Your task to perform on an android device: make emails show in primary in the gmail app Image 0: 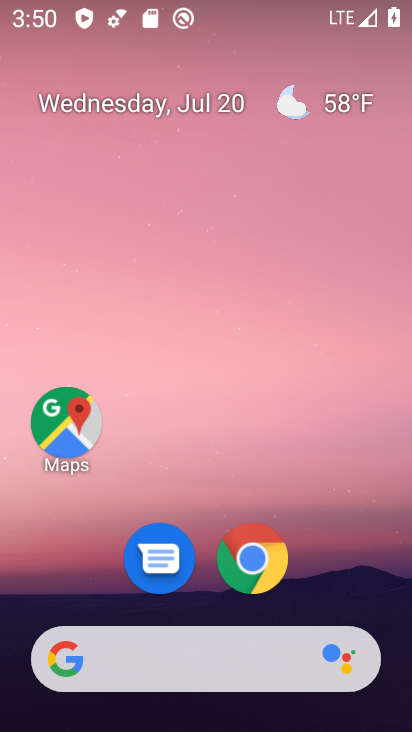
Step 0: drag from (92, 597) to (188, 30)
Your task to perform on an android device: make emails show in primary in the gmail app Image 1: 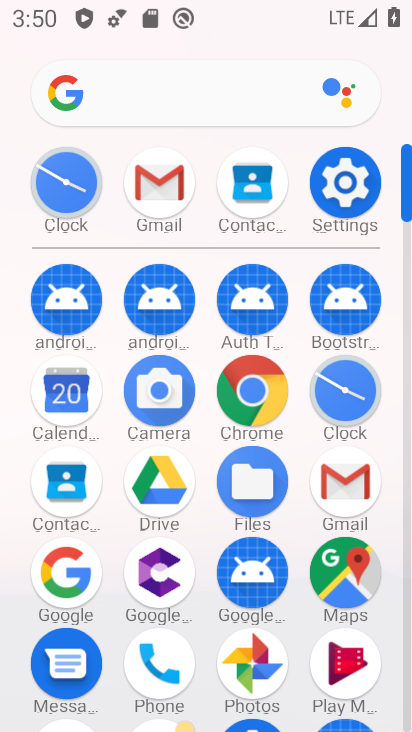
Step 1: click (170, 190)
Your task to perform on an android device: make emails show in primary in the gmail app Image 2: 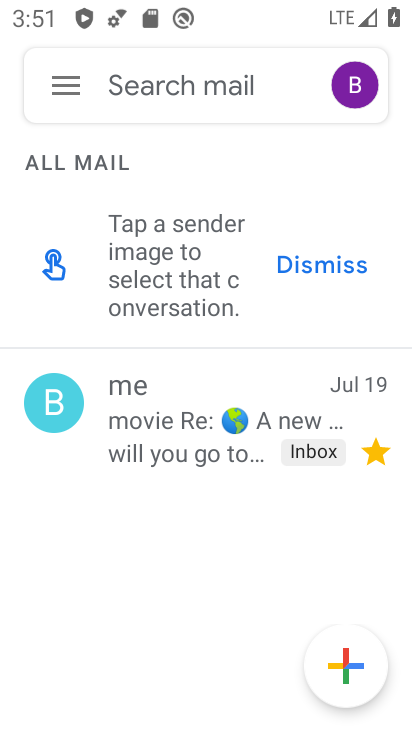
Step 2: click (61, 73)
Your task to perform on an android device: make emails show in primary in the gmail app Image 3: 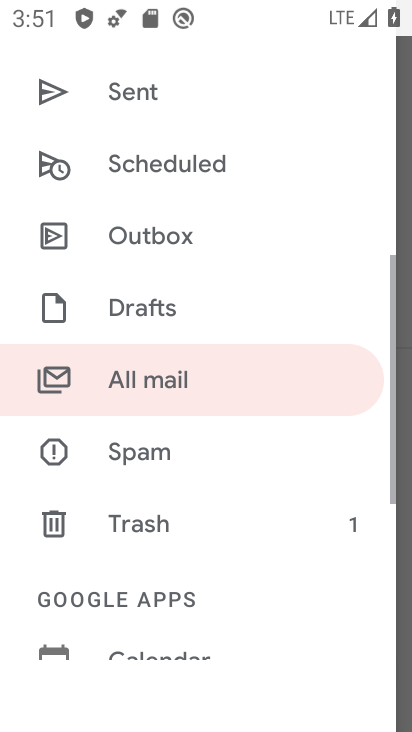
Step 3: drag from (182, 631) to (270, 24)
Your task to perform on an android device: make emails show in primary in the gmail app Image 4: 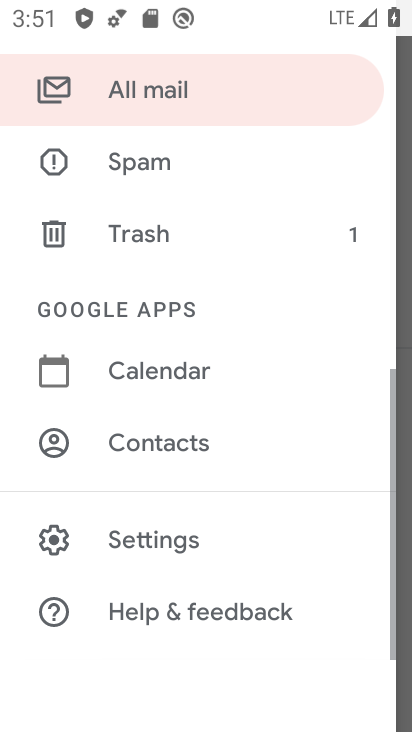
Step 4: click (143, 532)
Your task to perform on an android device: make emails show in primary in the gmail app Image 5: 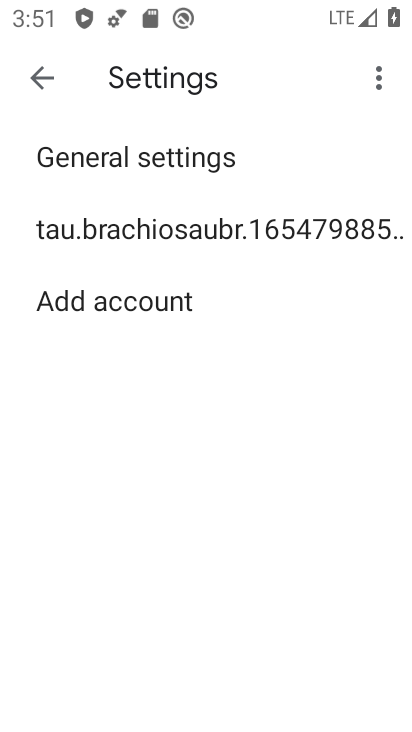
Step 5: click (143, 222)
Your task to perform on an android device: make emails show in primary in the gmail app Image 6: 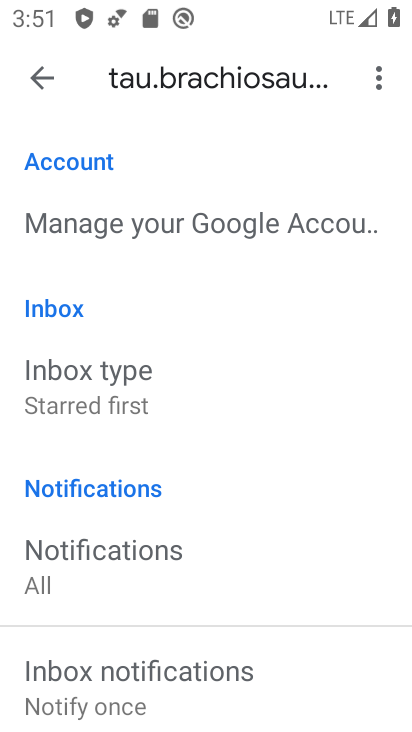
Step 6: task complete